Your task to perform on an android device: turn off sleep mode Image 0: 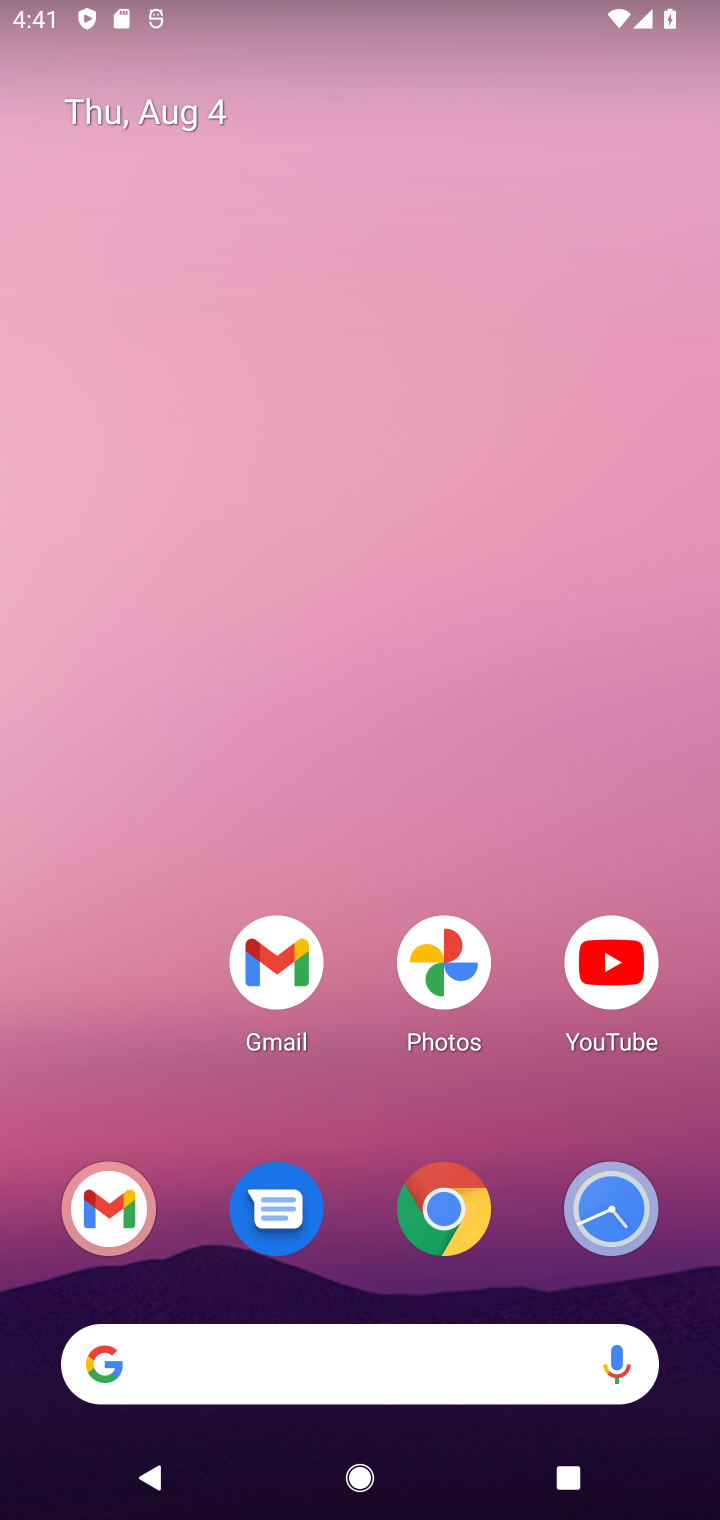
Step 0: press back button
Your task to perform on an android device: turn off sleep mode Image 1: 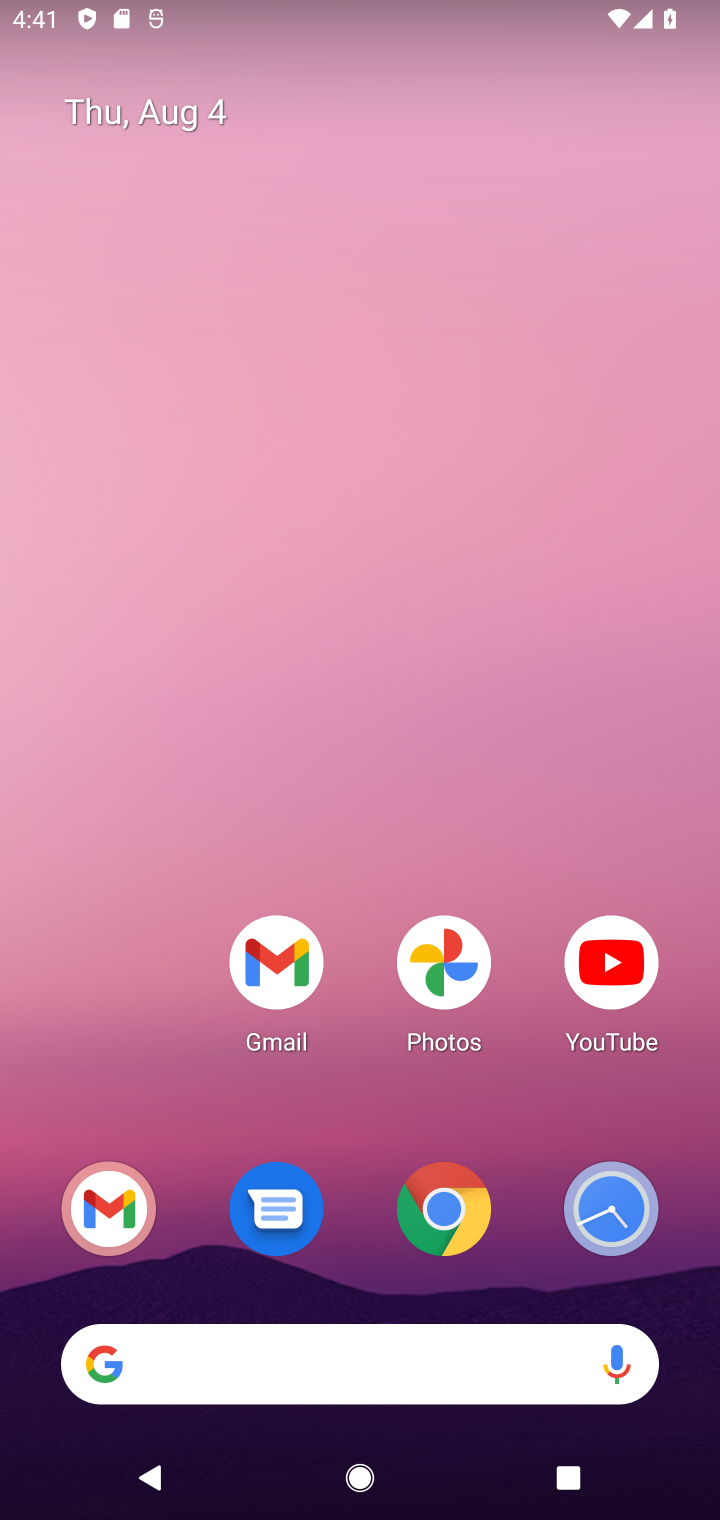
Step 1: drag from (330, 970) to (352, 183)
Your task to perform on an android device: turn off sleep mode Image 2: 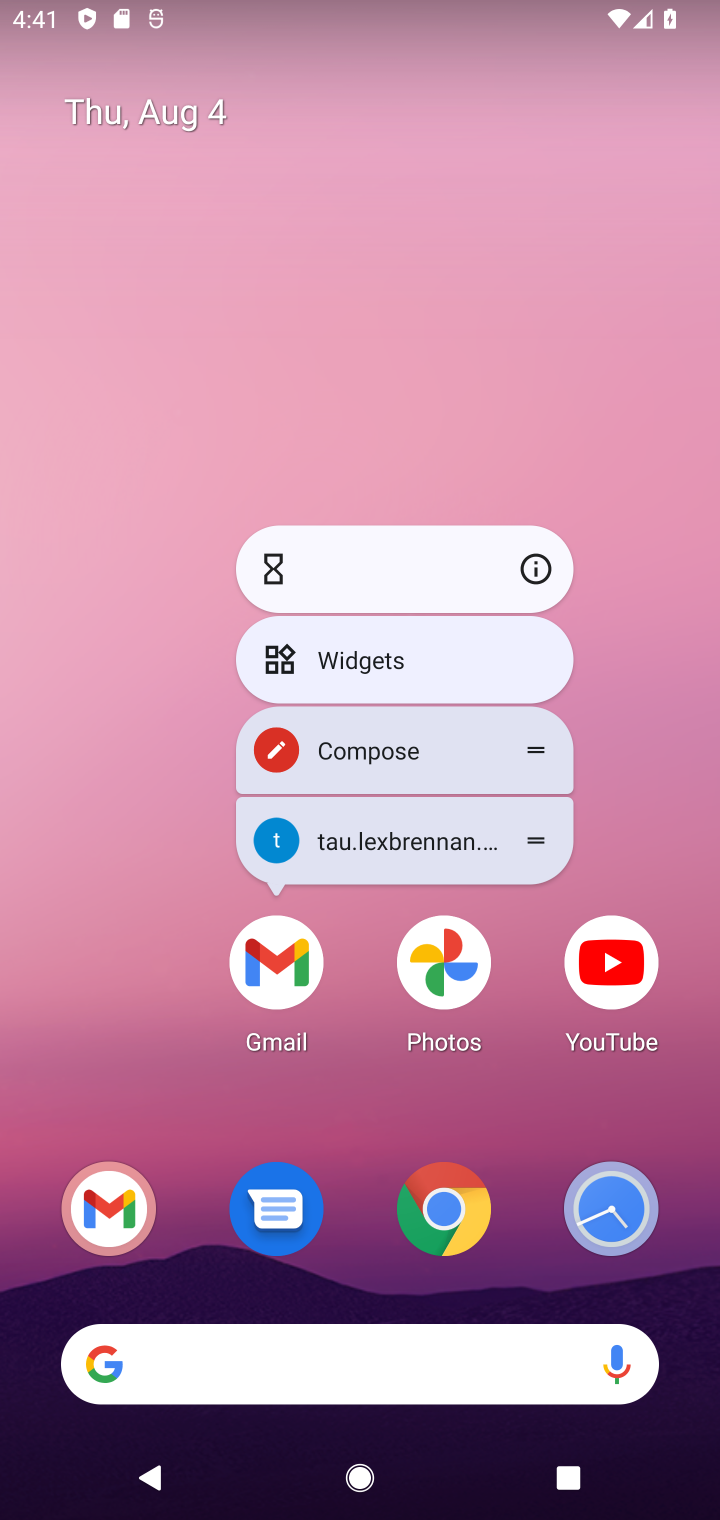
Step 2: click (335, 1216)
Your task to perform on an android device: turn off sleep mode Image 3: 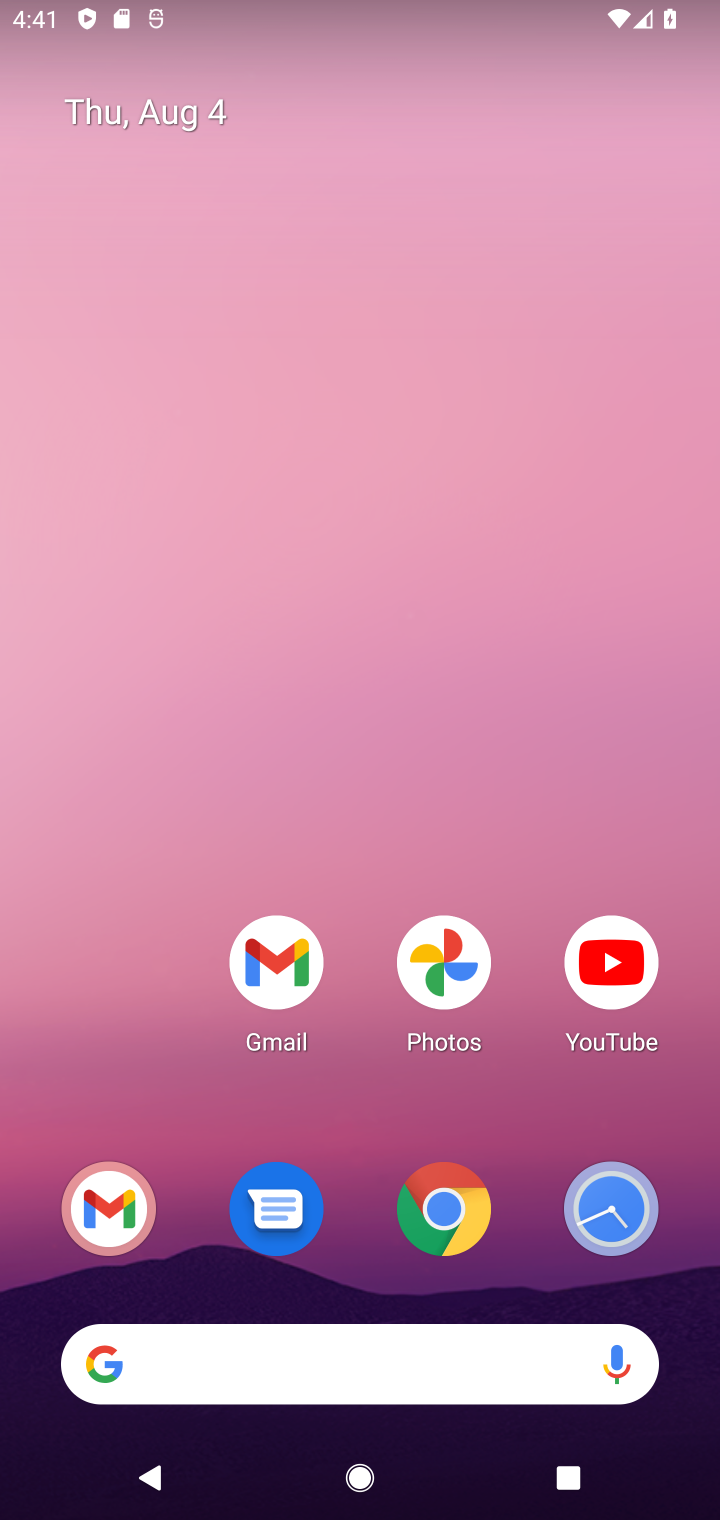
Step 3: drag from (347, 1051) to (465, 85)
Your task to perform on an android device: turn off sleep mode Image 4: 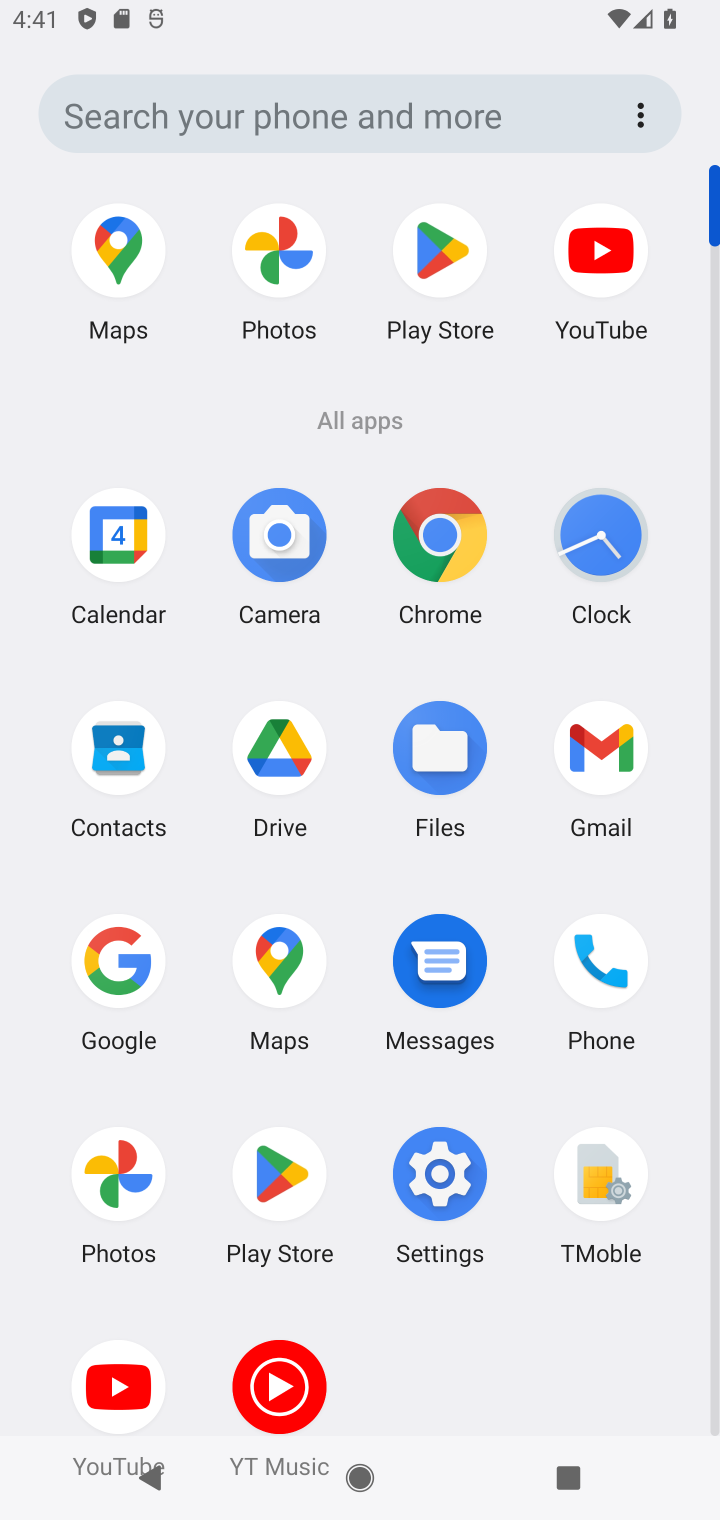
Step 4: click (445, 1220)
Your task to perform on an android device: turn off sleep mode Image 5: 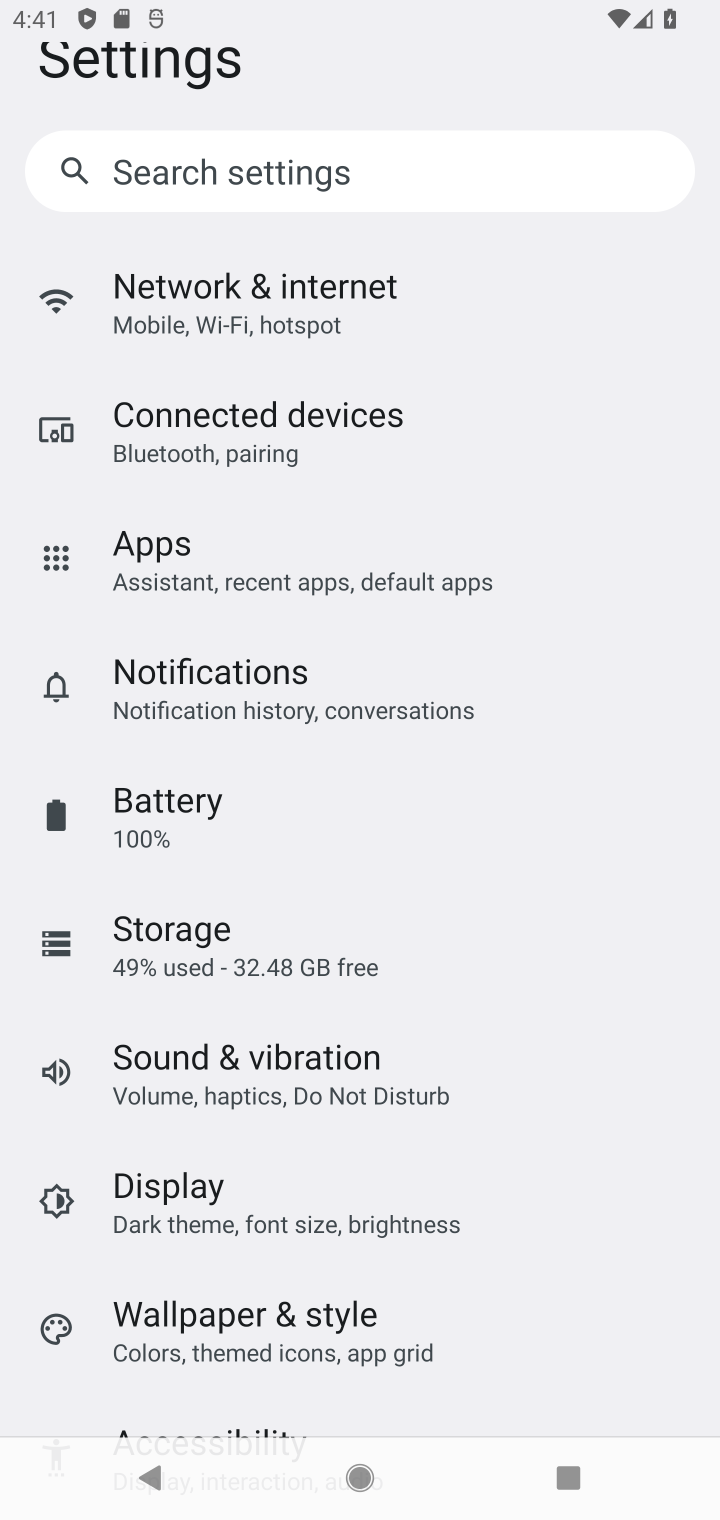
Step 5: task complete